Your task to perform on an android device: turn on the 24-hour format for clock Image 0: 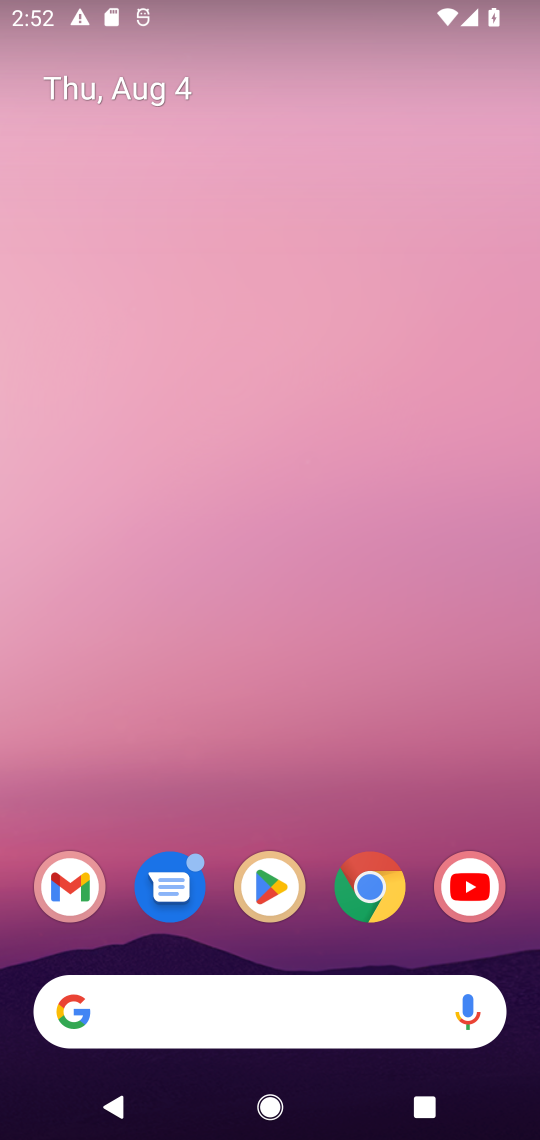
Step 0: drag from (350, 985) to (196, 13)
Your task to perform on an android device: turn on the 24-hour format for clock Image 1: 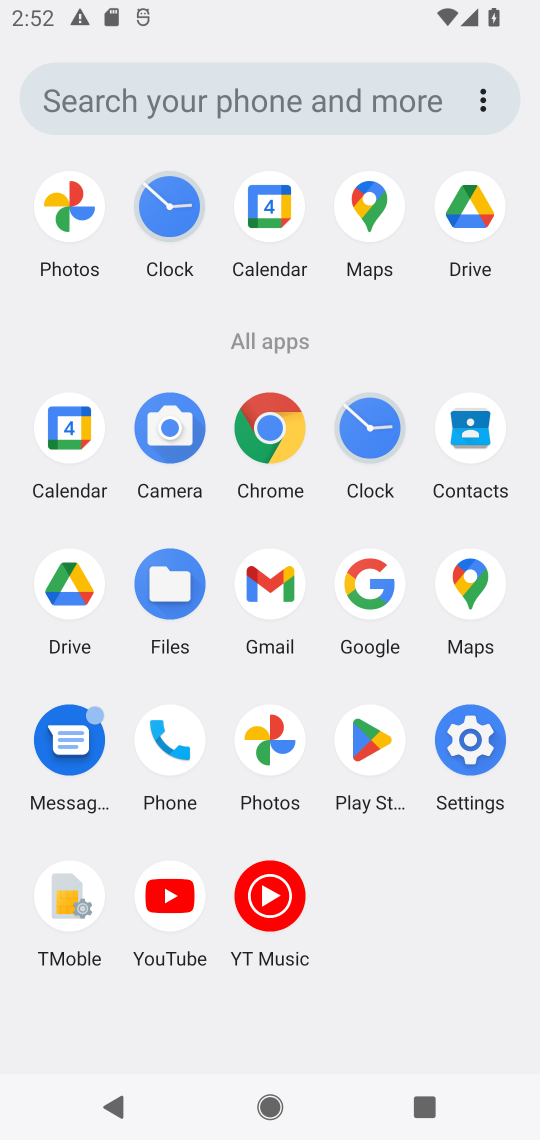
Step 1: click (374, 437)
Your task to perform on an android device: turn on the 24-hour format for clock Image 2: 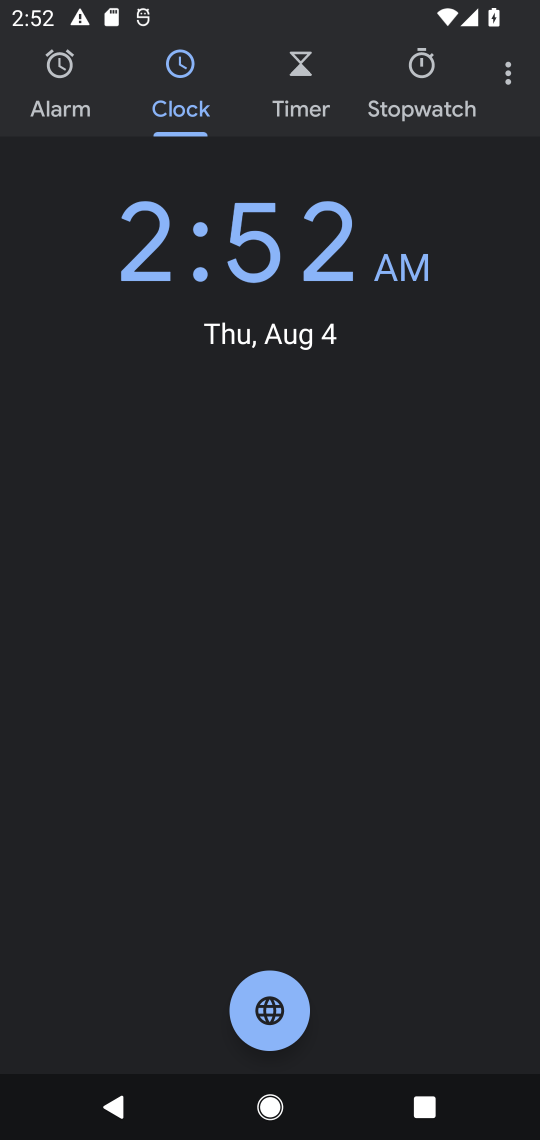
Step 2: click (499, 77)
Your task to perform on an android device: turn on the 24-hour format for clock Image 3: 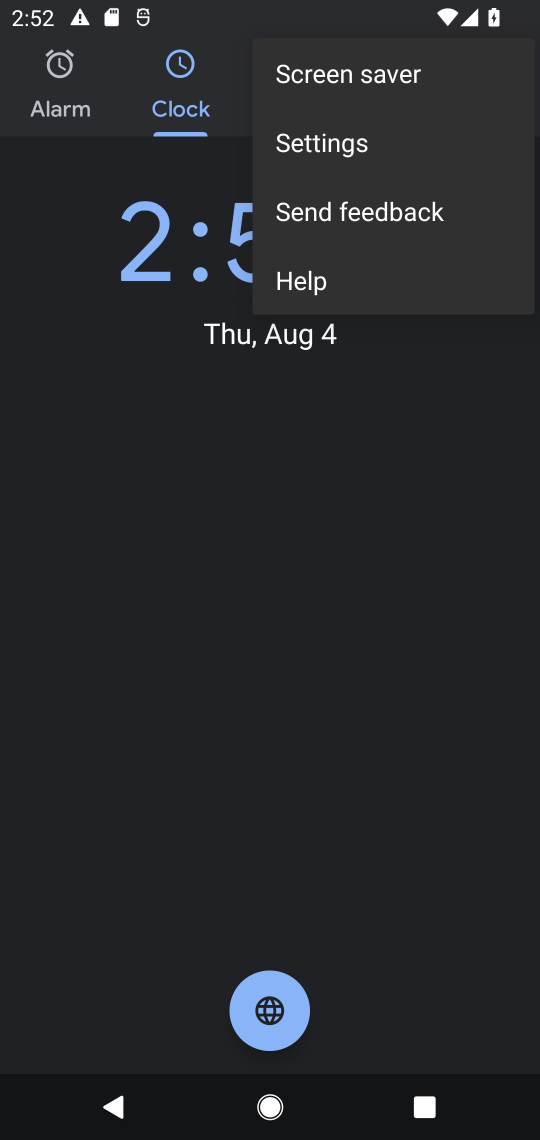
Step 3: click (289, 140)
Your task to perform on an android device: turn on the 24-hour format for clock Image 4: 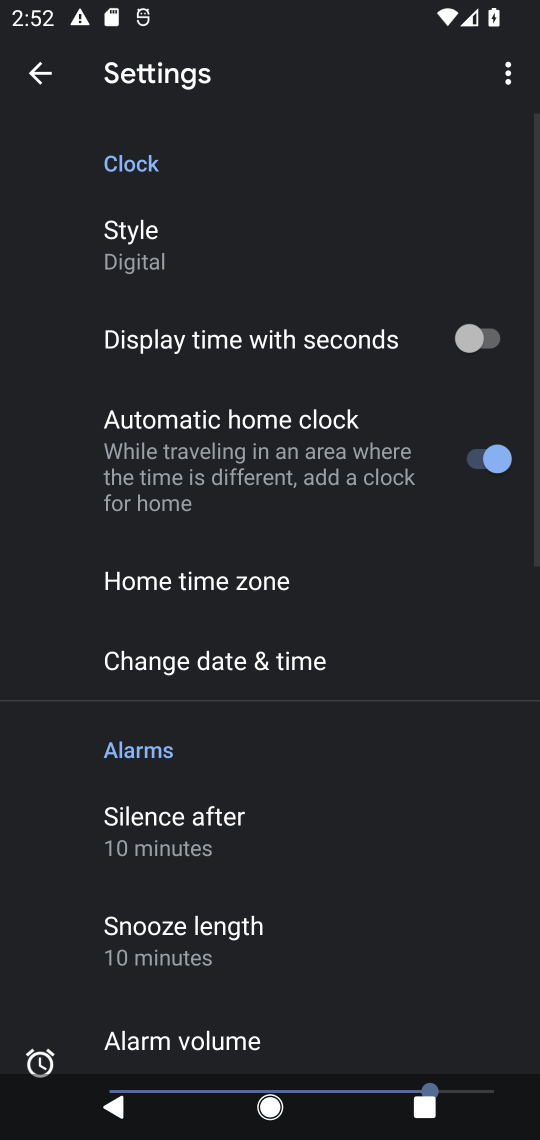
Step 4: drag from (84, 802) to (51, 465)
Your task to perform on an android device: turn on the 24-hour format for clock Image 5: 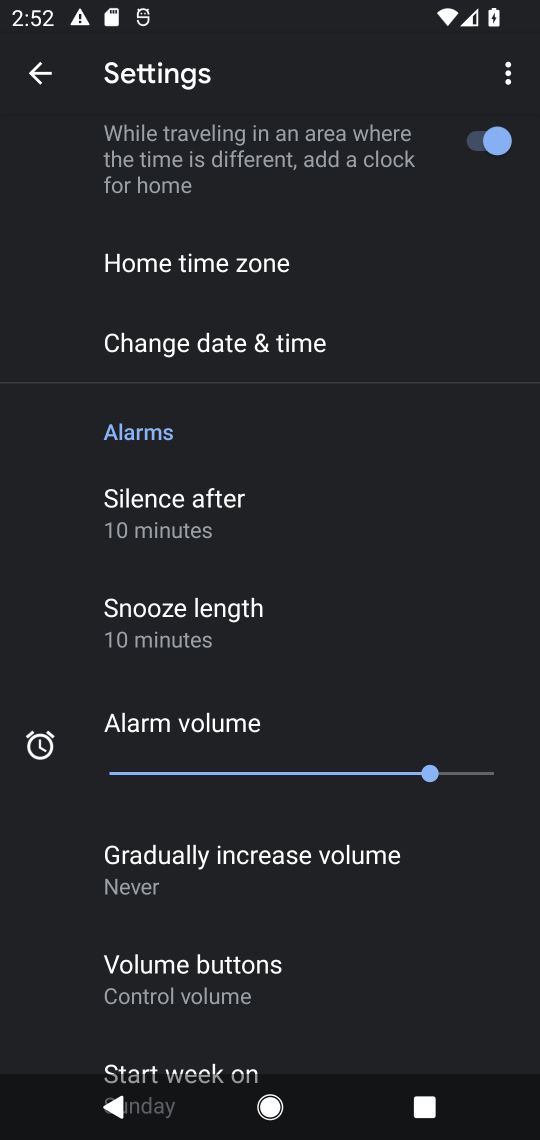
Step 5: click (247, 333)
Your task to perform on an android device: turn on the 24-hour format for clock Image 6: 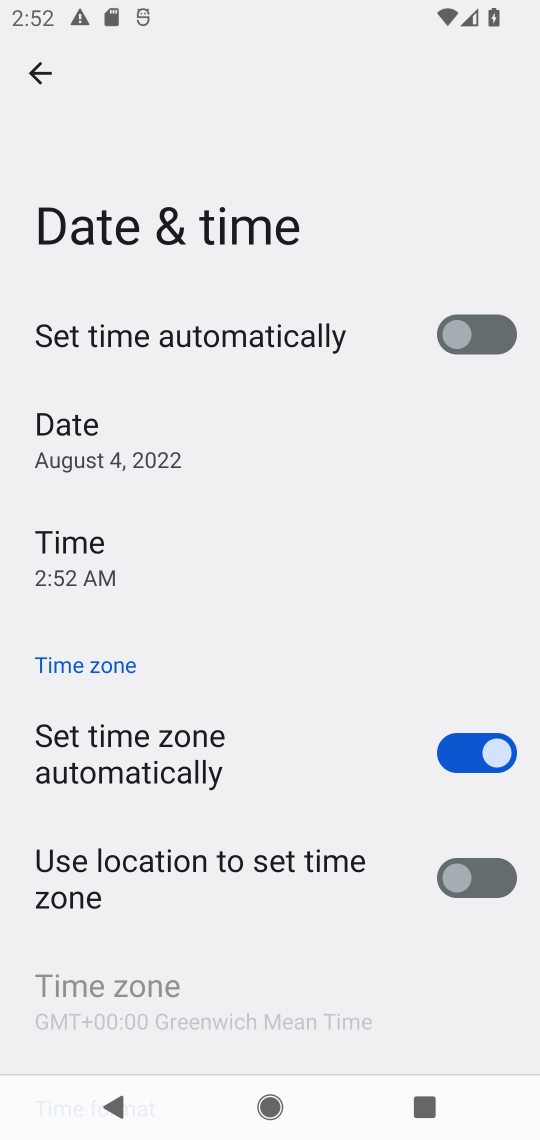
Step 6: drag from (333, 967) to (280, 170)
Your task to perform on an android device: turn on the 24-hour format for clock Image 7: 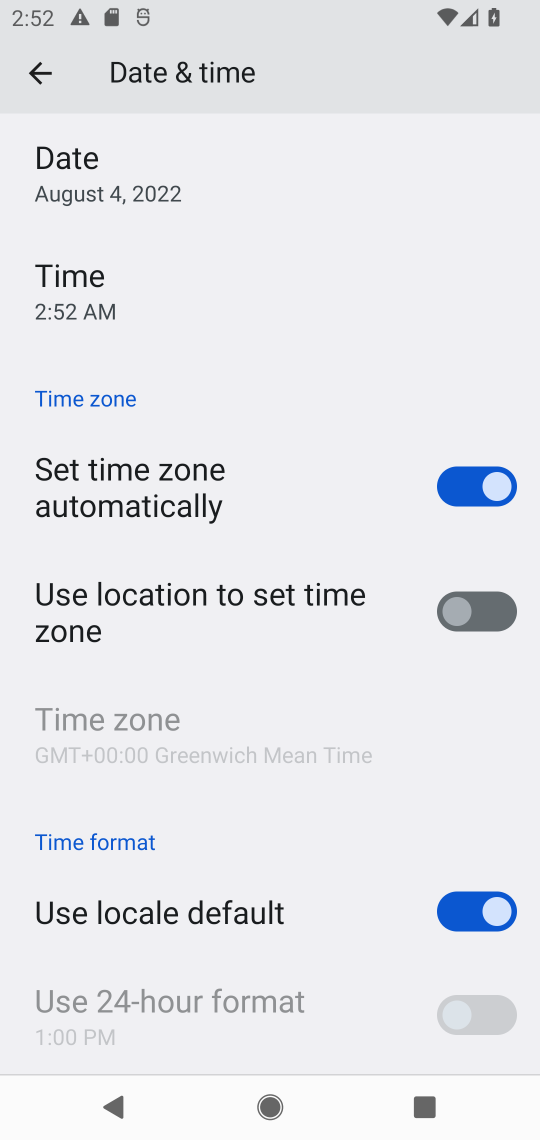
Step 7: click (475, 927)
Your task to perform on an android device: turn on the 24-hour format for clock Image 8: 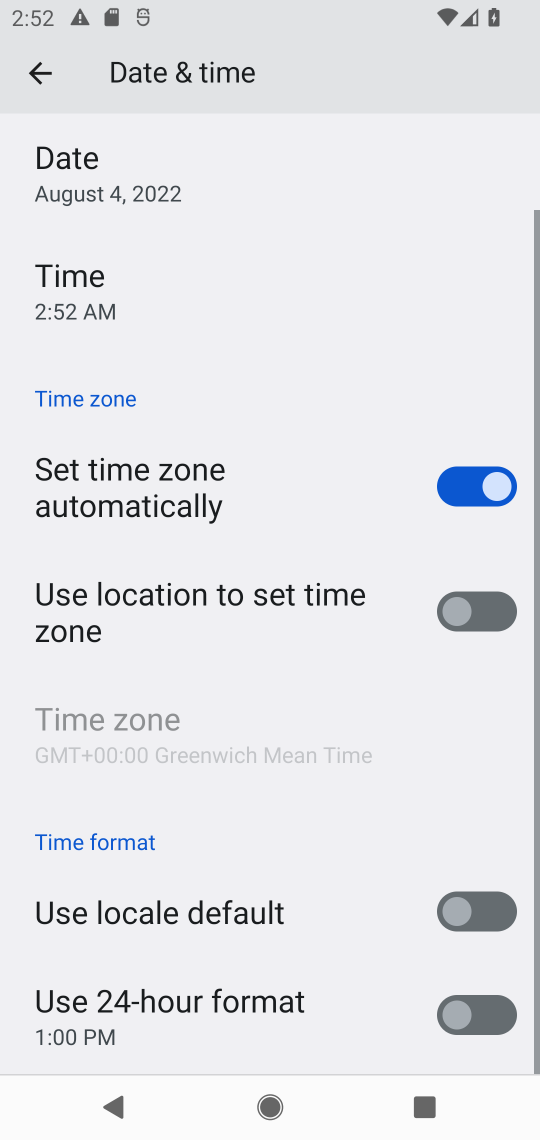
Step 8: click (463, 1018)
Your task to perform on an android device: turn on the 24-hour format for clock Image 9: 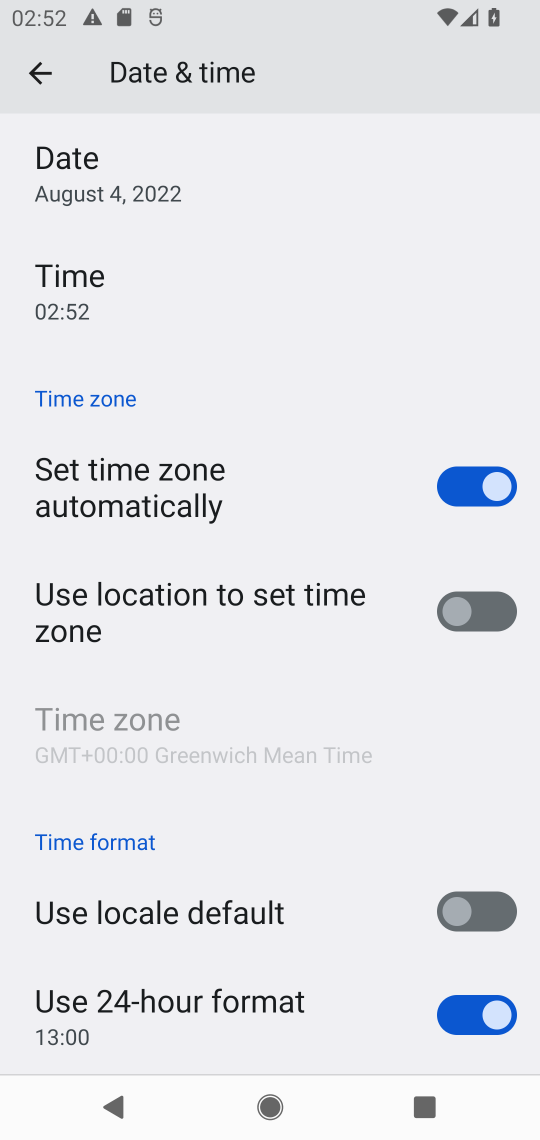
Step 9: task complete